Your task to perform on an android device: Go to display settings Image 0: 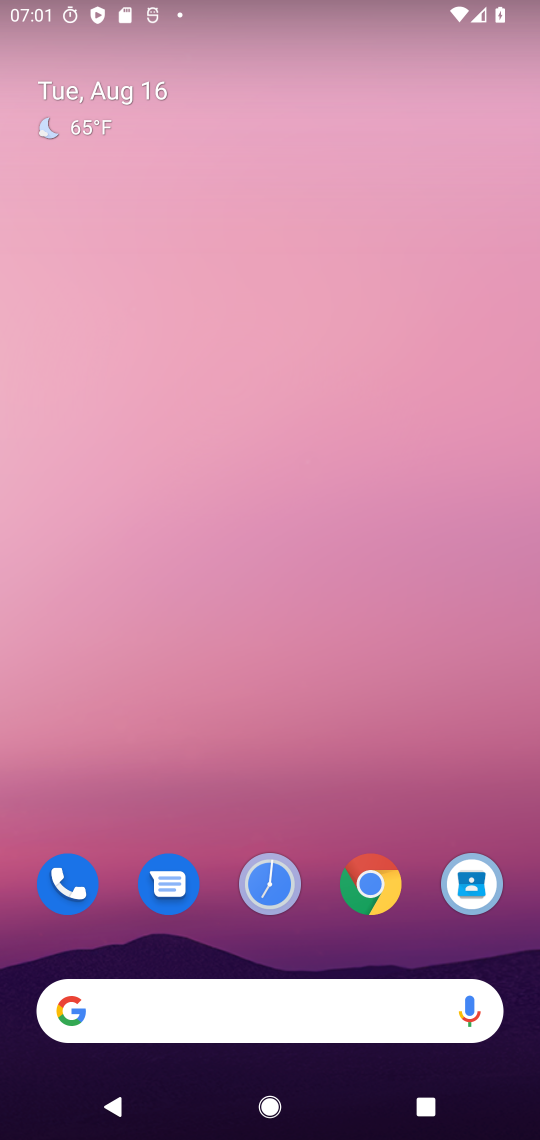
Step 0: press home button
Your task to perform on an android device: Go to display settings Image 1: 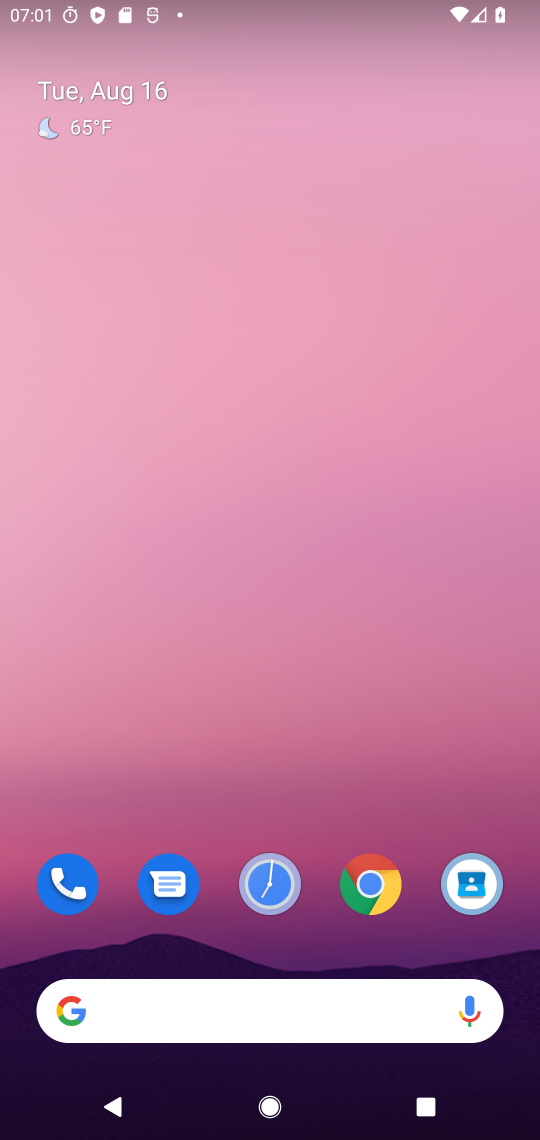
Step 1: drag from (451, 955) to (312, 93)
Your task to perform on an android device: Go to display settings Image 2: 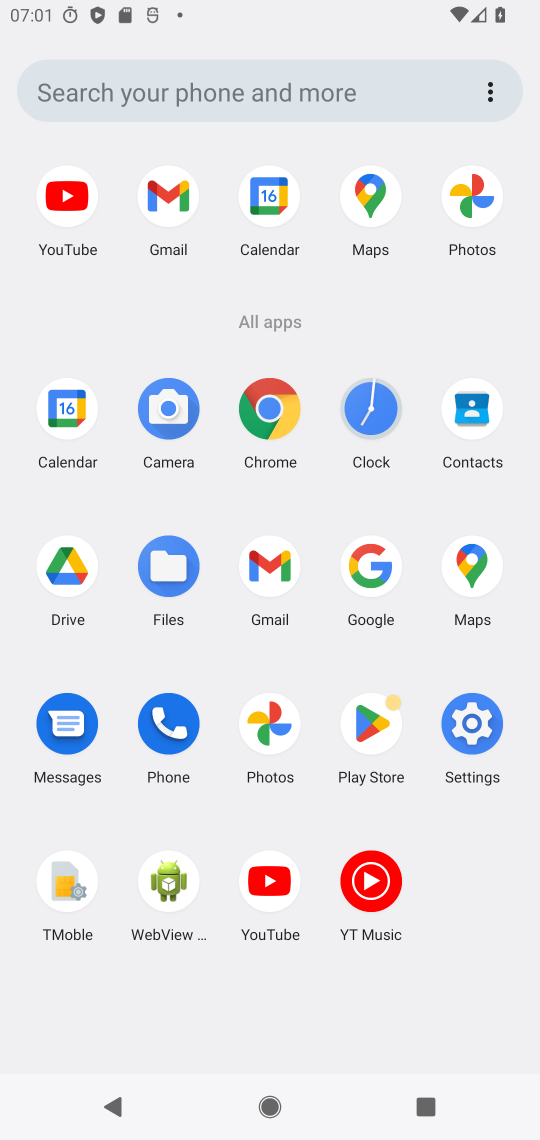
Step 2: click (466, 737)
Your task to perform on an android device: Go to display settings Image 3: 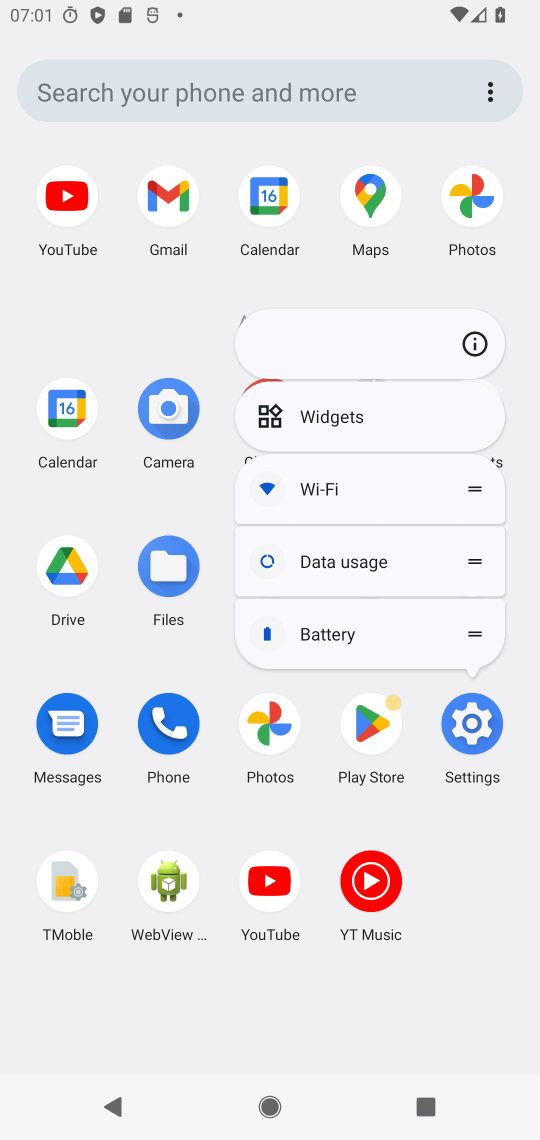
Step 3: click (466, 737)
Your task to perform on an android device: Go to display settings Image 4: 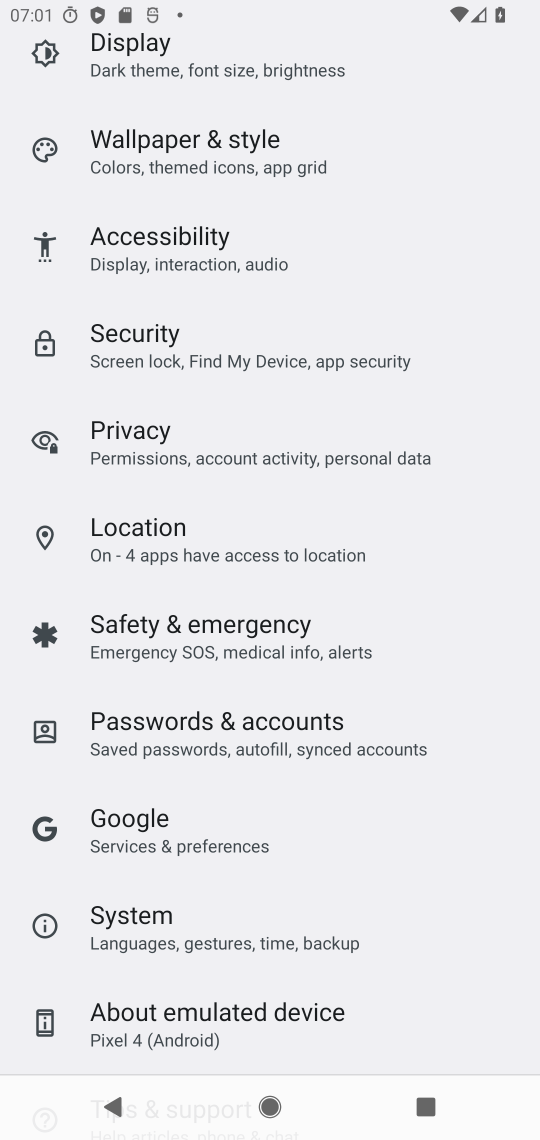
Step 4: click (112, 41)
Your task to perform on an android device: Go to display settings Image 5: 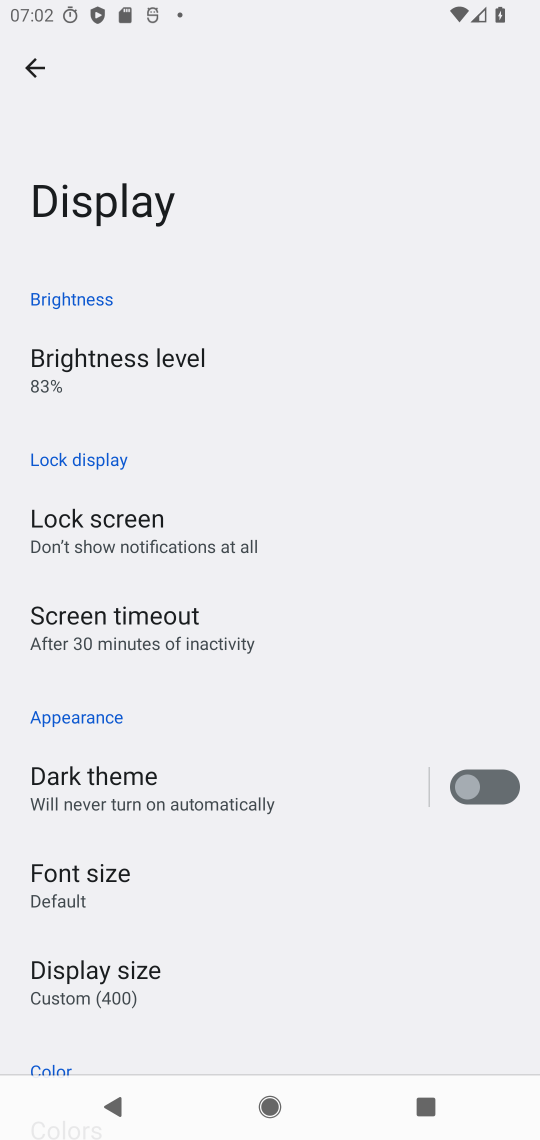
Step 5: task complete